Your task to perform on an android device: turn on translation in the chrome app Image 0: 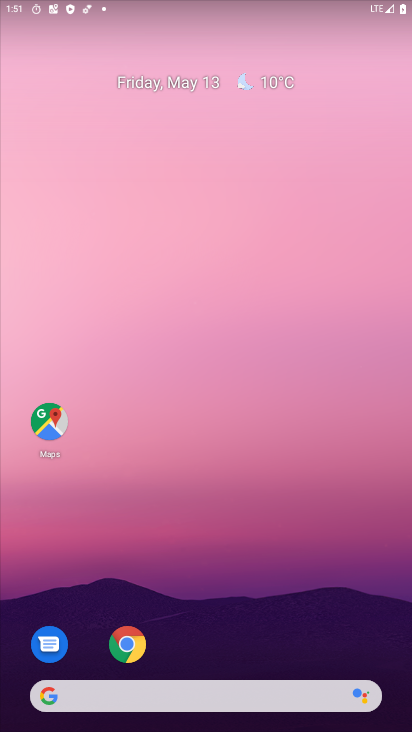
Step 0: drag from (299, 682) to (348, 103)
Your task to perform on an android device: turn on translation in the chrome app Image 1: 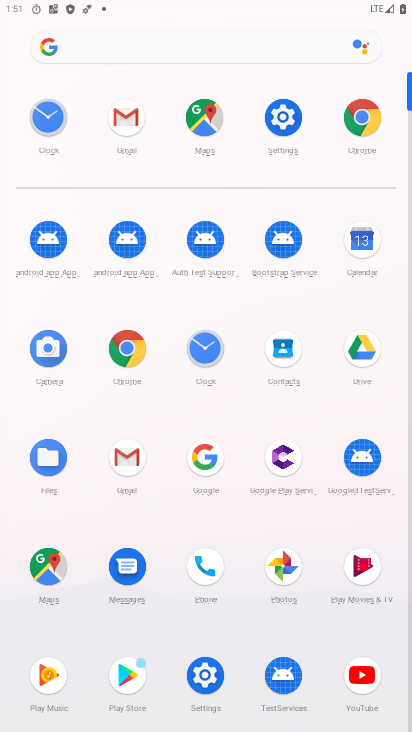
Step 1: click (125, 356)
Your task to perform on an android device: turn on translation in the chrome app Image 2: 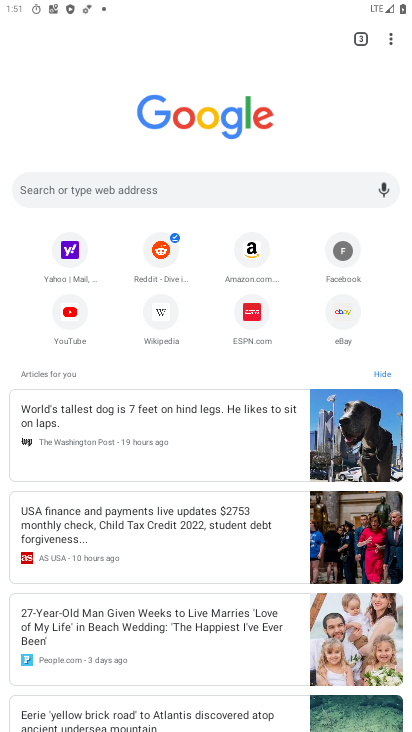
Step 2: drag from (393, 37) to (291, 330)
Your task to perform on an android device: turn on translation in the chrome app Image 3: 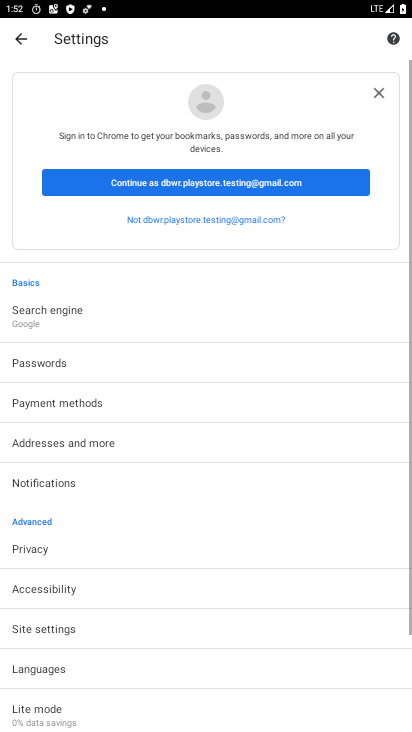
Step 3: drag from (101, 723) to (119, 320)
Your task to perform on an android device: turn on translation in the chrome app Image 4: 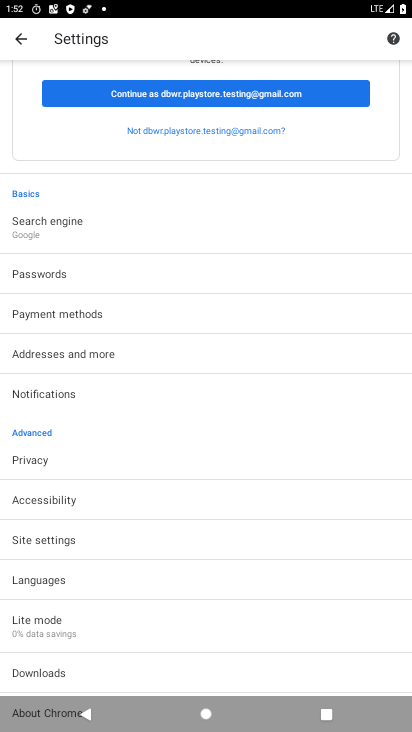
Step 4: click (63, 583)
Your task to perform on an android device: turn on translation in the chrome app Image 5: 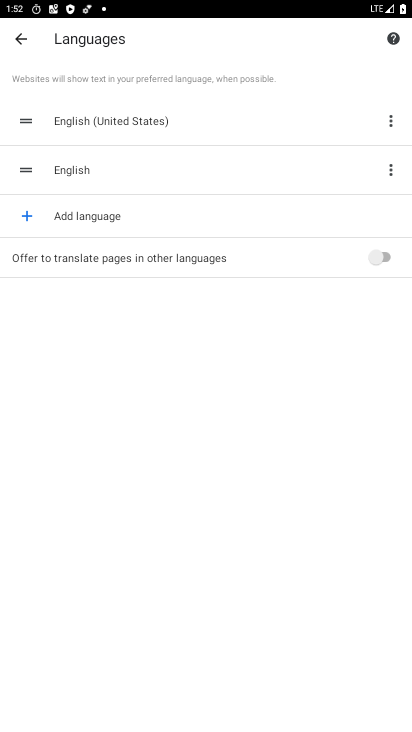
Step 5: click (383, 257)
Your task to perform on an android device: turn on translation in the chrome app Image 6: 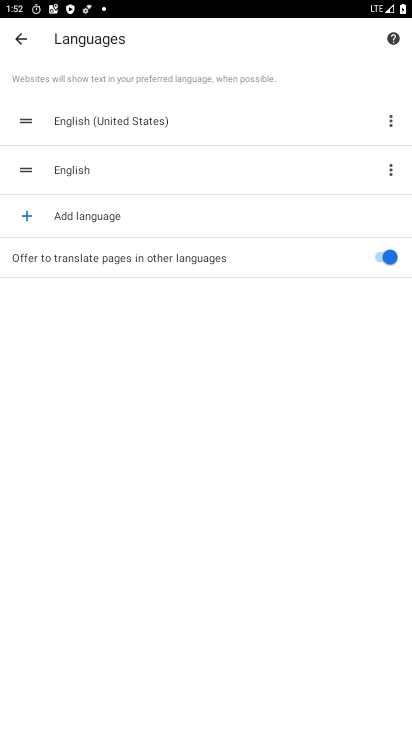
Step 6: task complete